Your task to perform on an android device: open a bookmark in the chrome app Image 0: 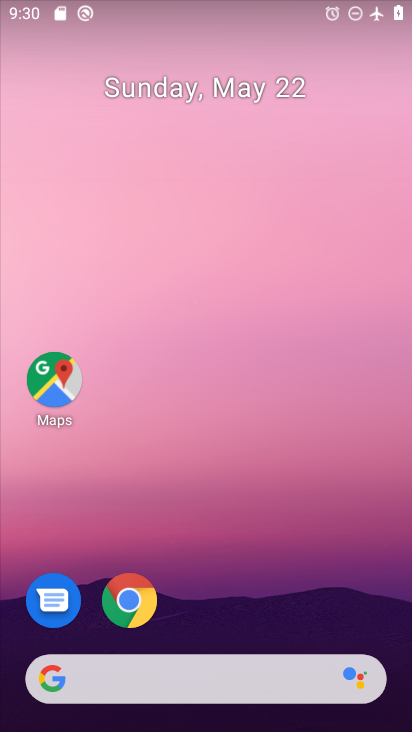
Step 0: drag from (244, 698) to (272, 118)
Your task to perform on an android device: open a bookmark in the chrome app Image 1: 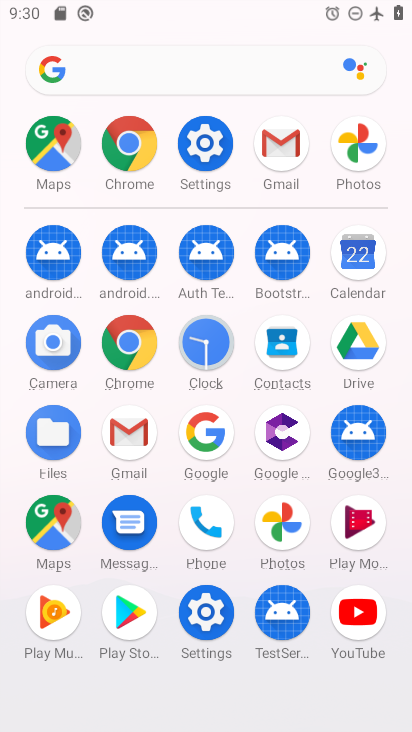
Step 1: click (136, 160)
Your task to perform on an android device: open a bookmark in the chrome app Image 2: 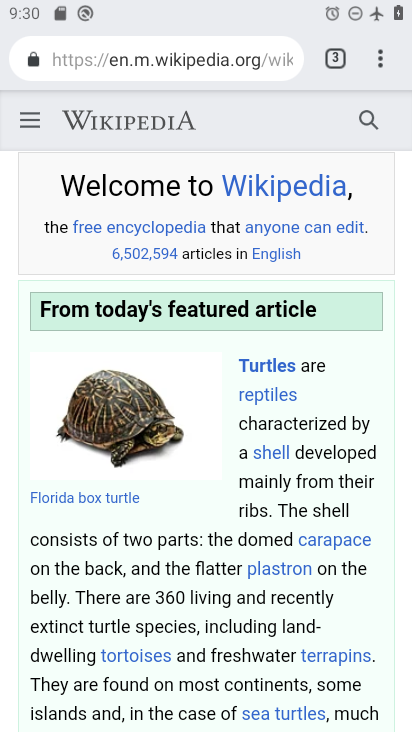
Step 2: click (377, 66)
Your task to perform on an android device: open a bookmark in the chrome app Image 3: 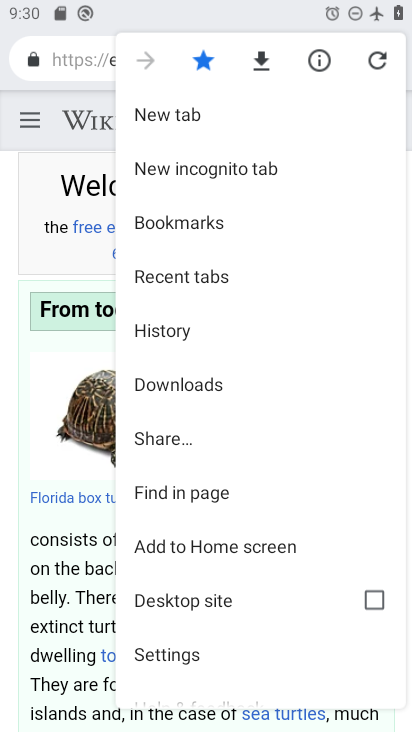
Step 3: click (174, 231)
Your task to perform on an android device: open a bookmark in the chrome app Image 4: 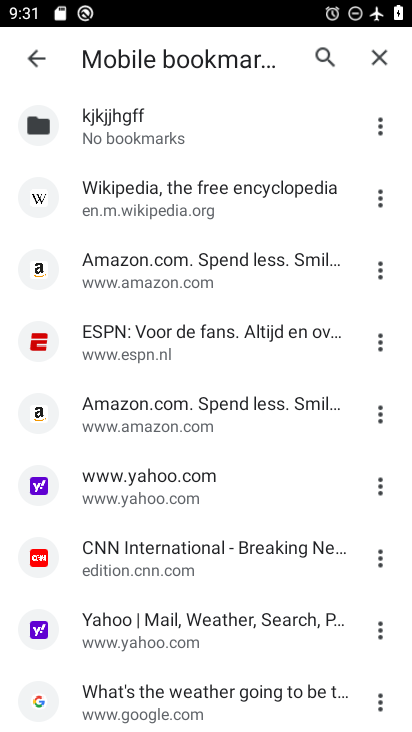
Step 4: click (208, 638)
Your task to perform on an android device: open a bookmark in the chrome app Image 5: 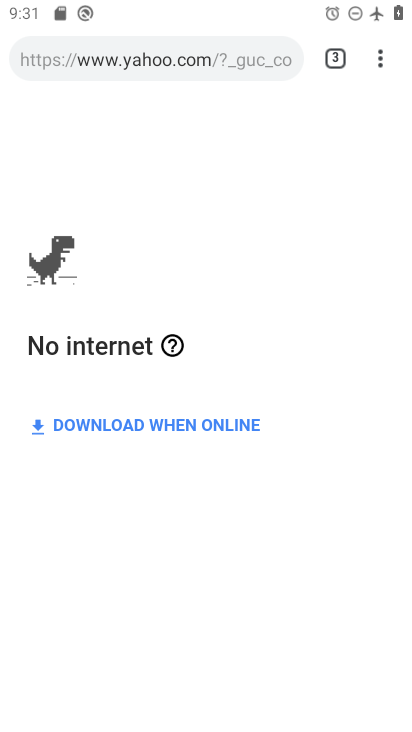
Step 5: task complete